Your task to perform on an android device: Add macbook to the cart on target, then select checkout. Image 0: 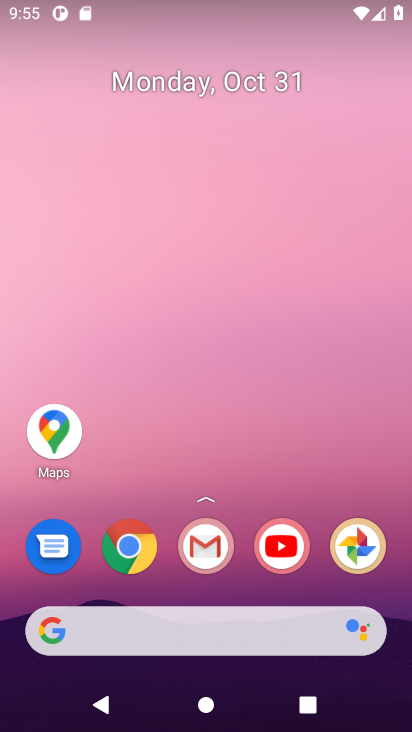
Step 0: click (130, 552)
Your task to perform on an android device: Add macbook to the cart on target, then select checkout. Image 1: 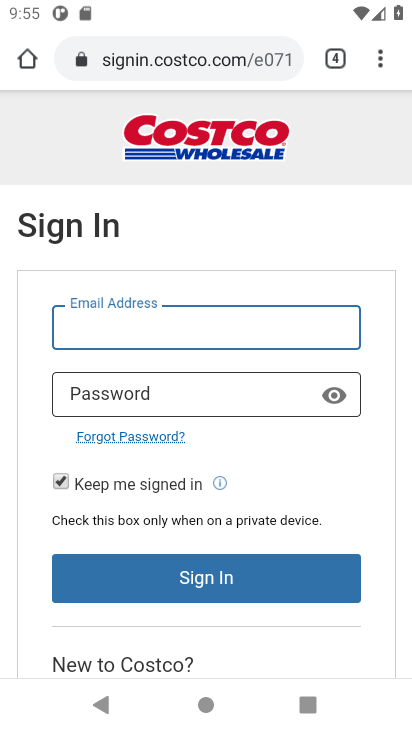
Step 1: click (162, 62)
Your task to perform on an android device: Add macbook to the cart on target, then select checkout. Image 2: 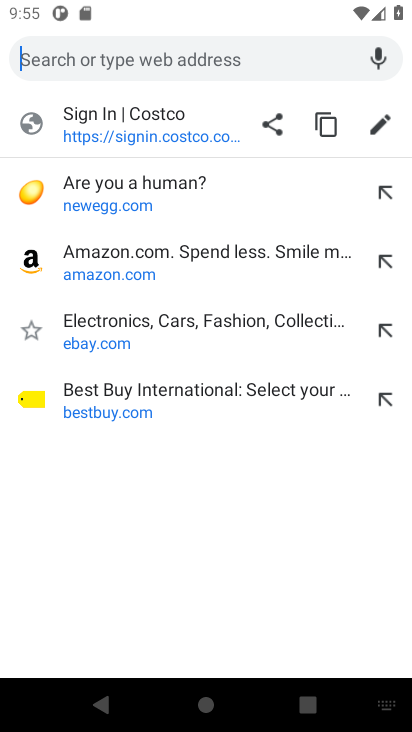
Step 2: type "target"
Your task to perform on an android device: Add macbook to the cart on target, then select checkout. Image 3: 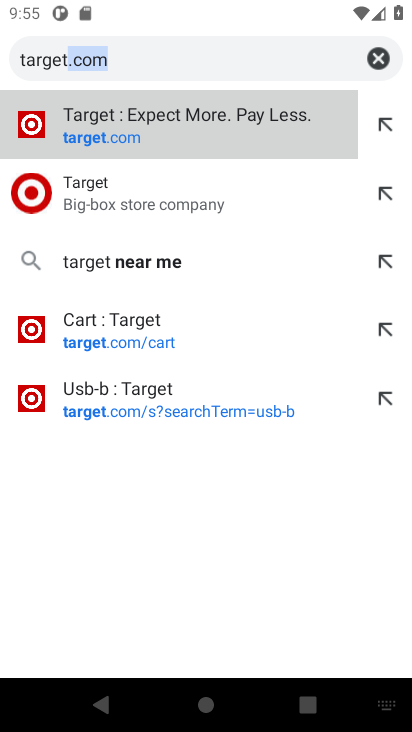
Step 3: press enter
Your task to perform on an android device: Add macbook to the cart on target, then select checkout. Image 4: 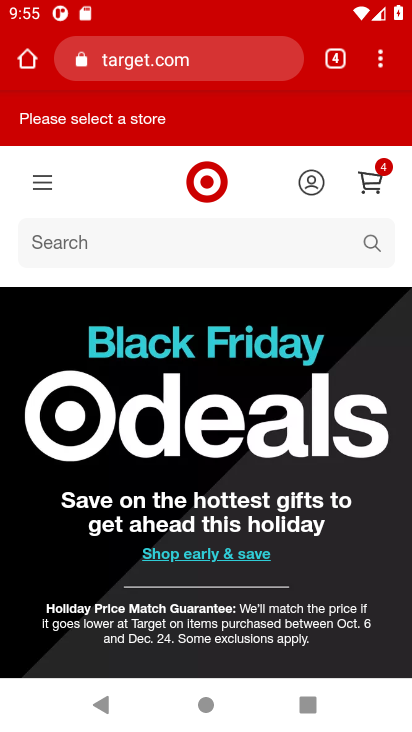
Step 4: click (286, 250)
Your task to perform on an android device: Add macbook to the cart on target, then select checkout. Image 5: 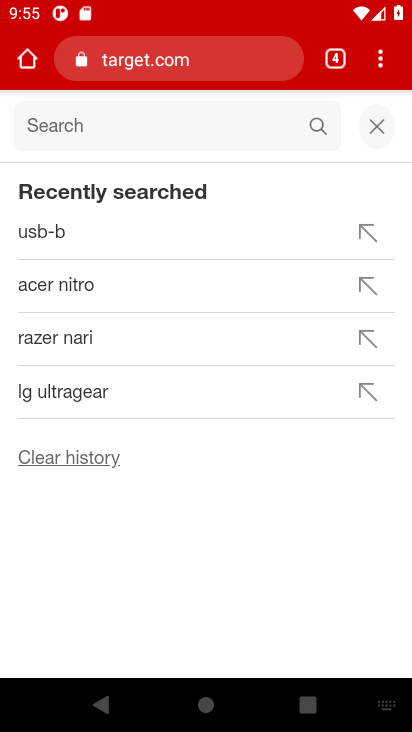
Step 5: type "macbook"
Your task to perform on an android device: Add macbook to the cart on target, then select checkout. Image 6: 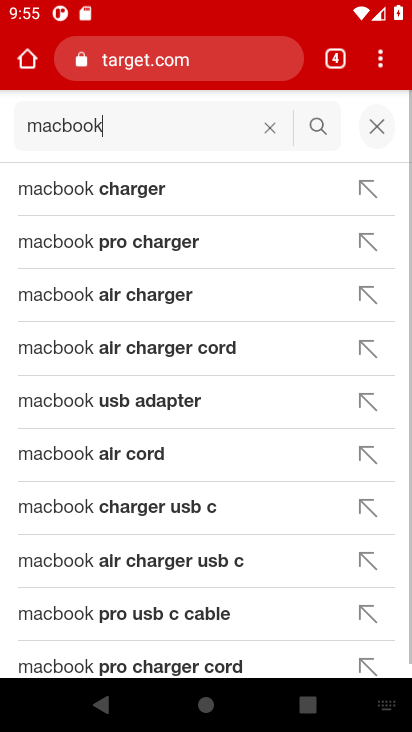
Step 6: press enter
Your task to perform on an android device: Add macbook to the cart on target, then select checkout. Image 7: 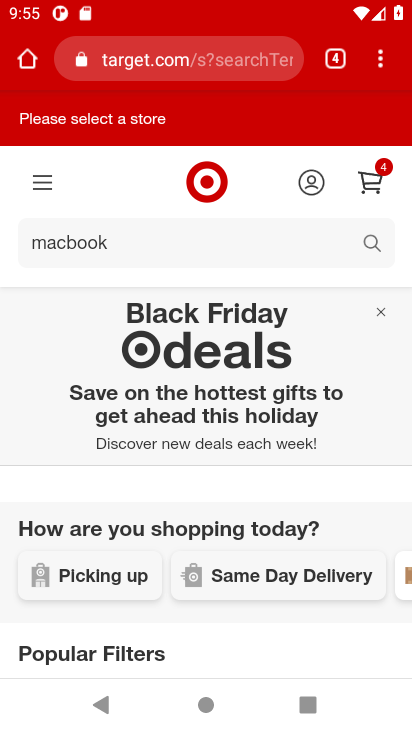
Step 7: task complete